Your task to perform on an android device: Open location settings Image 0: 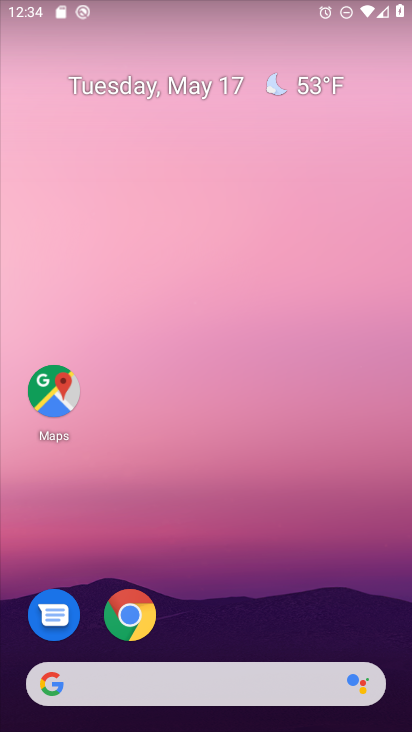
Step 0: drag from (231, 491) to (257, 317)
Your task to perform on an android device: Open location settings Image 1: 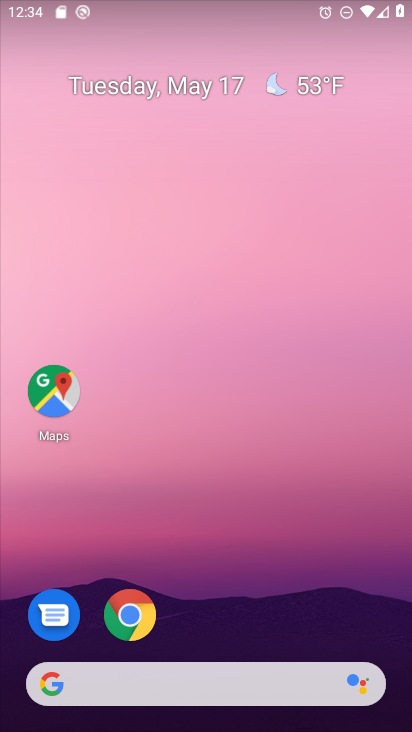
Step 1: drag from (229, 636) to (229, 280)
Your task to perform on an android device: Open location settings Image 2: 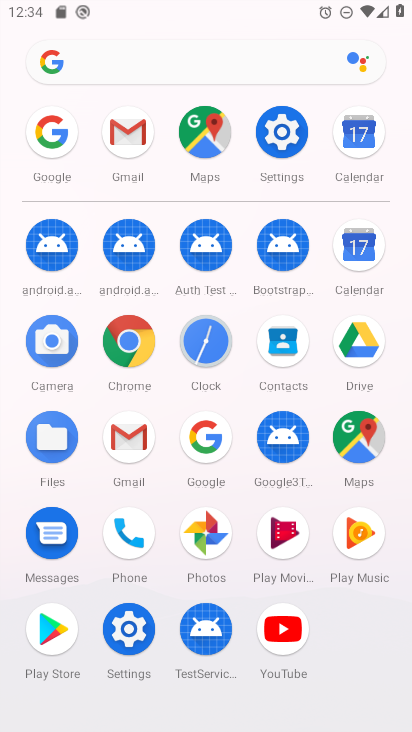
Step 2: click (287, 127)
Your task to perform on an android device: Open location settings Image 3: 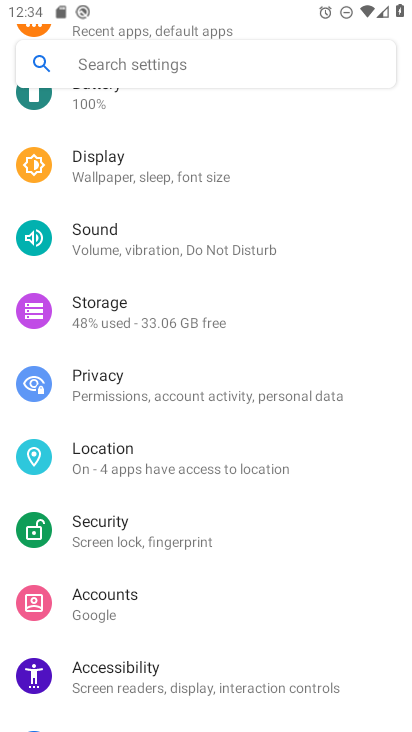
Step 3: click (139, 427)
Your task to perform on an android device: Open location settings Image 4: 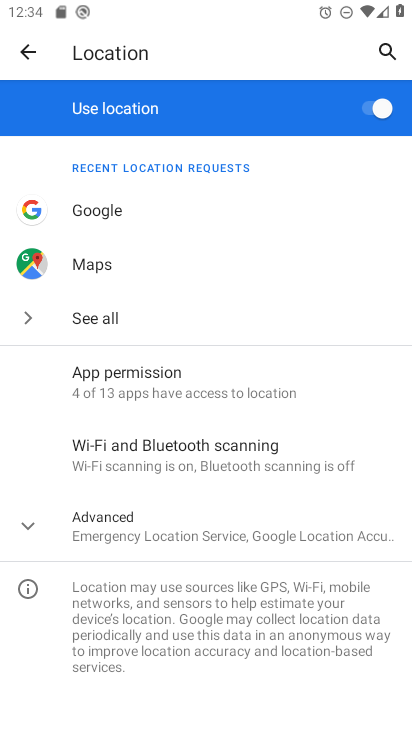
Step 4: click (165, 532)
Your task to perform on an android device: Open location settings Image 5: 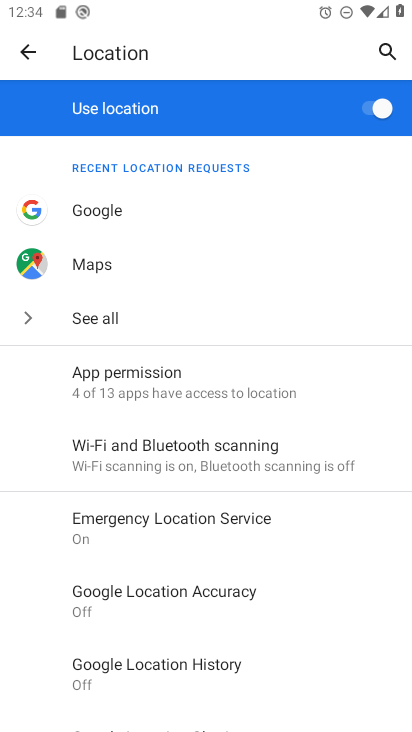
Step 5: task complete